Your task to perform on an android device: Go to internet settings Image 0: 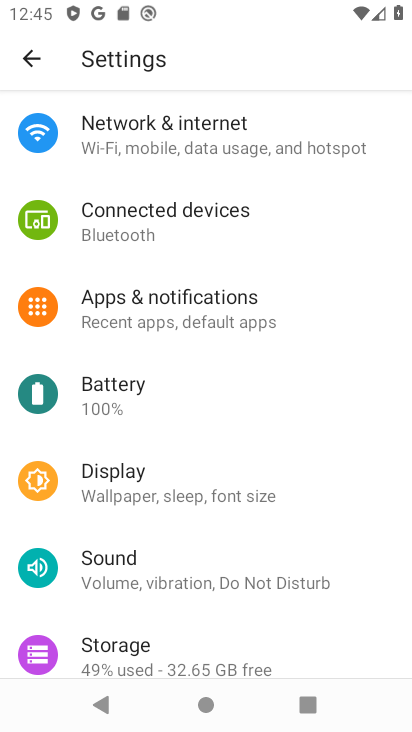
Step 0: click (200, 139)
Your task to perform on an android device: Go to internet settings Image 1: 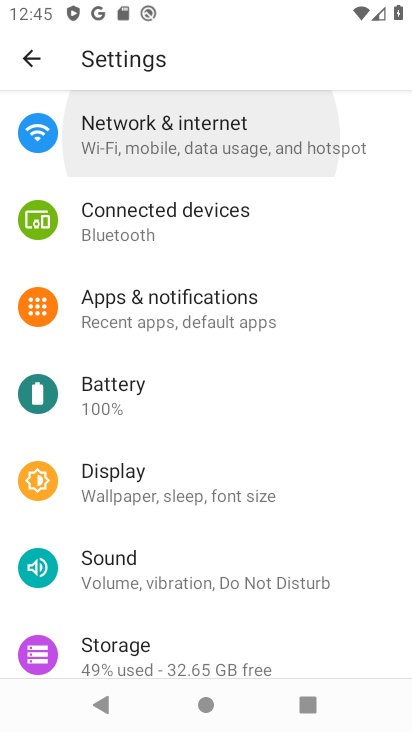
Step 1: click (200, 139)
Your task to perform on an android device: Go to internet settings Image 2: 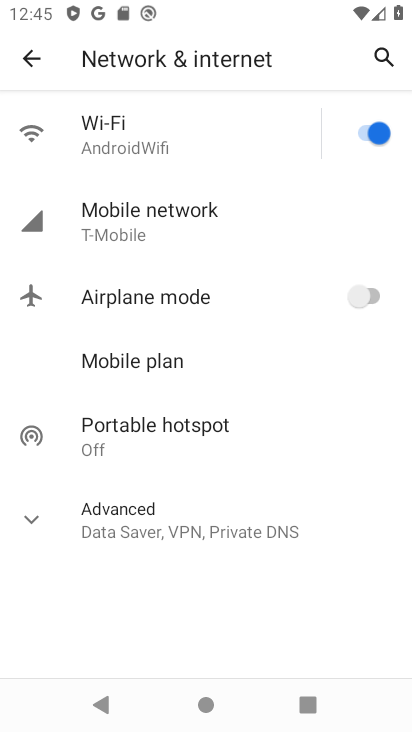
Step 2: task complete